Your task to perform on an android device: Open Amazon Image 0: 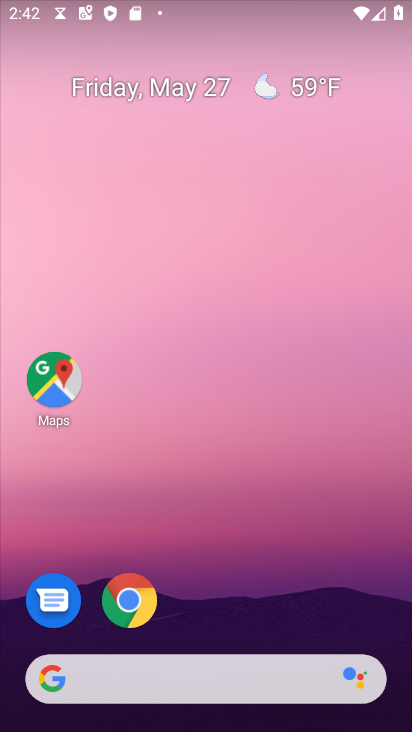
Step 0: click (126, 598)
Your task to perform on an android device: Open Amazon Image 1: 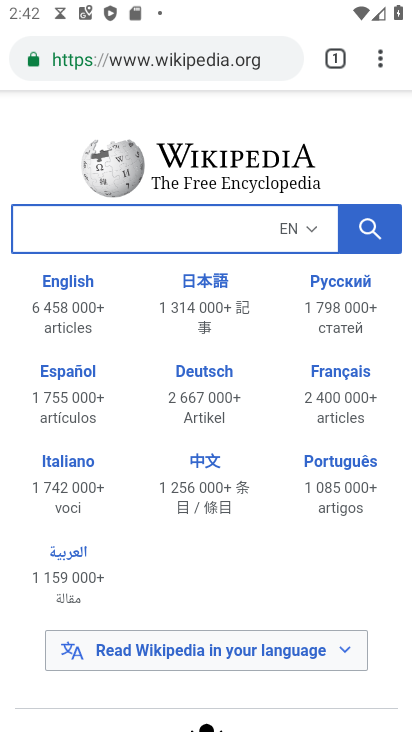
Step 1: click (254, 62)
Your task to perform on an android device: Open Amazon Image 2: 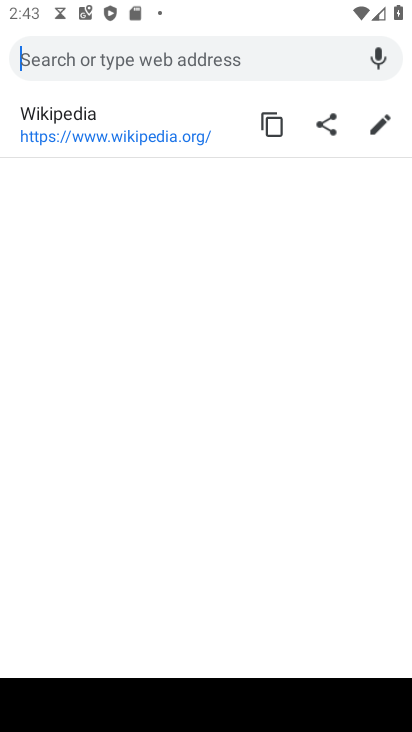
Step 2: type "Amazon"
Your task to perform on an android device: Open Amazon Image 3: 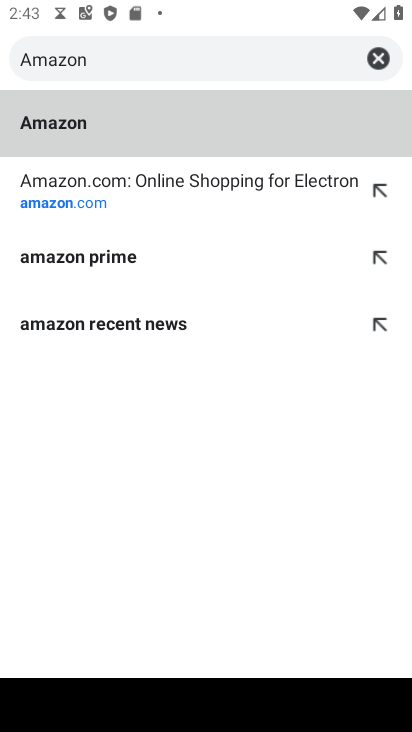
Step 3: click (82, 135)
Your task to perform on an android device: Open Amazon Image 4: 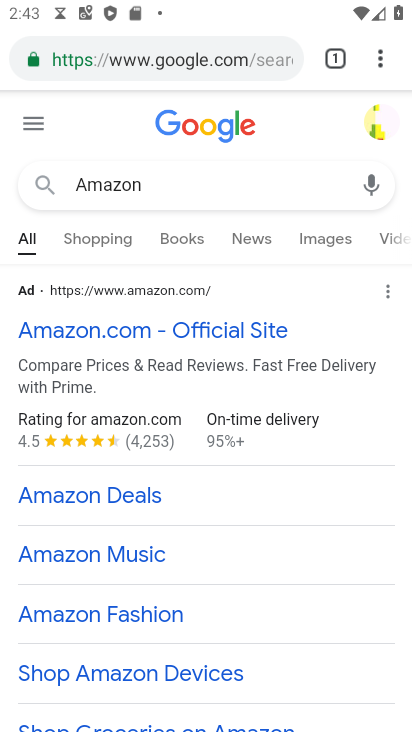
Step 4: drag from (186, 572) to (219, 296)
Your task to perform on an android device: Open Amazon Image 5: 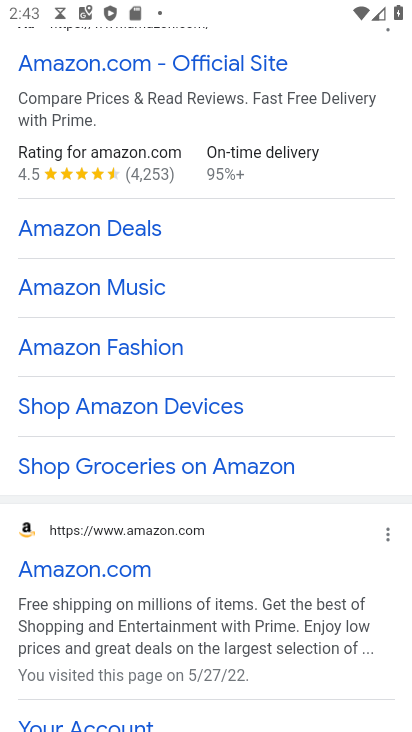
Step 5: click (132, 570)
Your task to perform on an android device: Open Amazon Image 6: 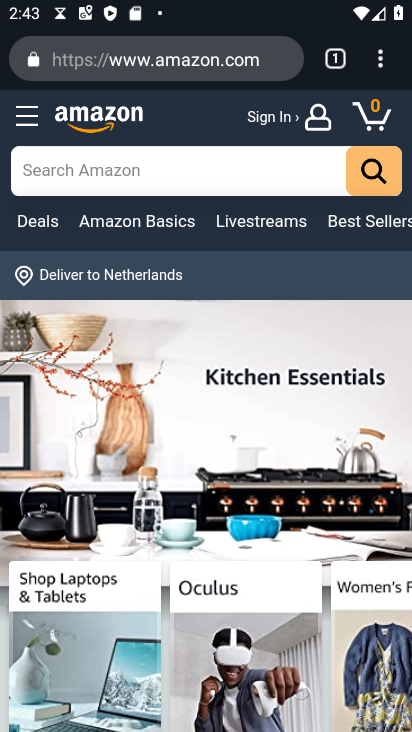
Step 6: task complete